Your task to perform on an android device: Open Wikipedia Image 0: 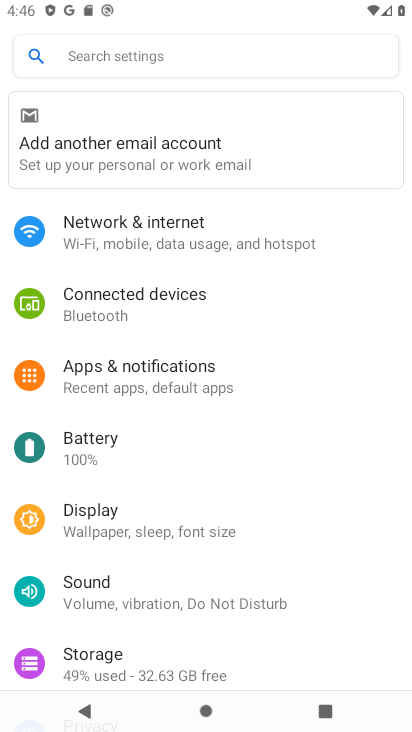
Step 0: press home button
Your task to perform on an android device: Open Wikipedia Image 1: 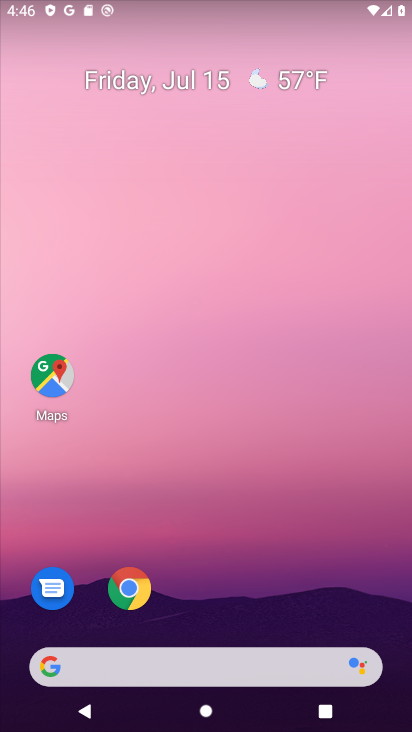
Step 1: drag from (227, 580) to (295, 62)
Your task to perform on an android device: Open Wikipedia Image 2: 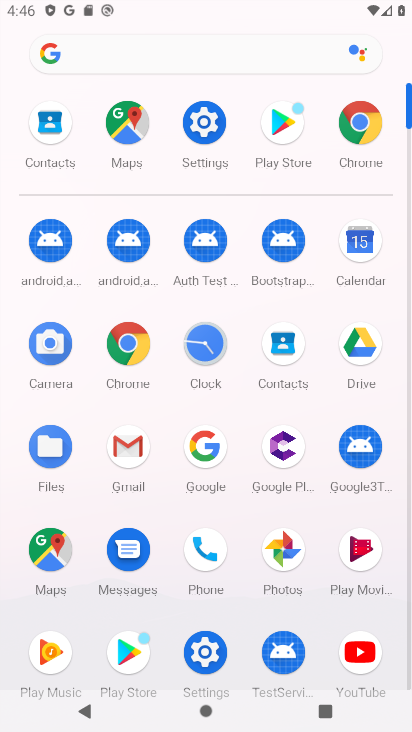
Step 2: click (115, 334)
Your task to perform on an android device: Open Wikipedia Image 3: 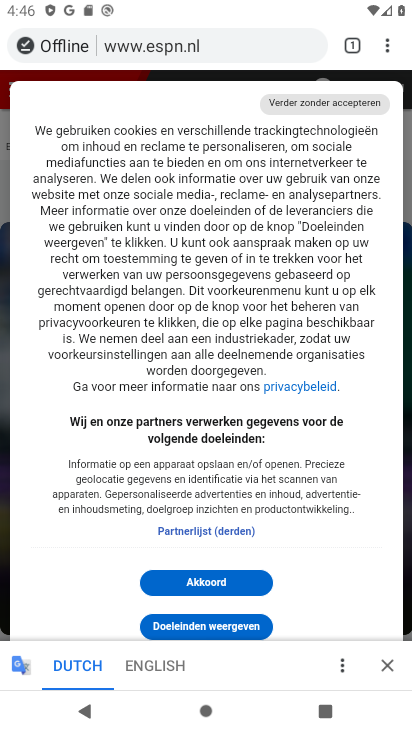
Step 3: drag from (386, 44) to (232, 165)
Your task to perform on an android device: Open Wikipedia Image 4: 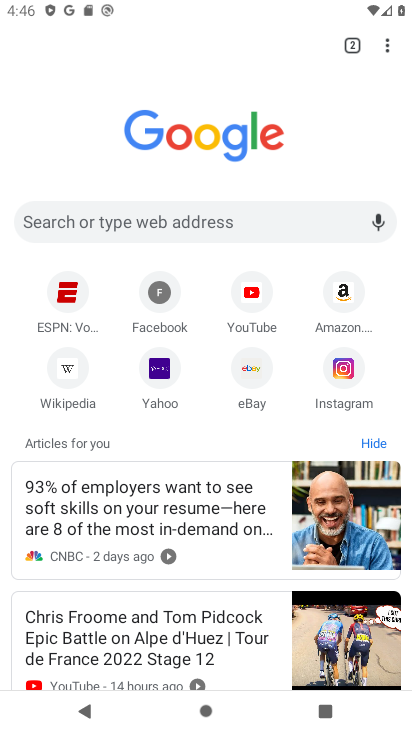
Step 4: click (72, 367)
Your task to perform on an android device: Open Wikipedia Image 5: 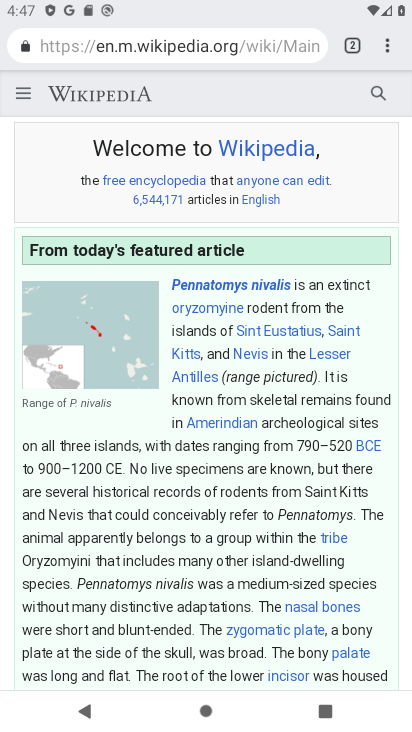
Step 5: task complete